Your task to perform on an android device: snooze an email in the gmail app Image 0: 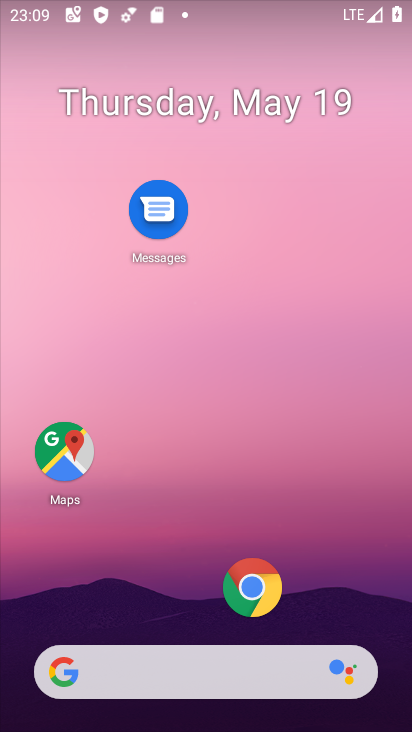
Step 0: press home button
Your task to perform on an android device: snooze an email in the gmail app Image 1: 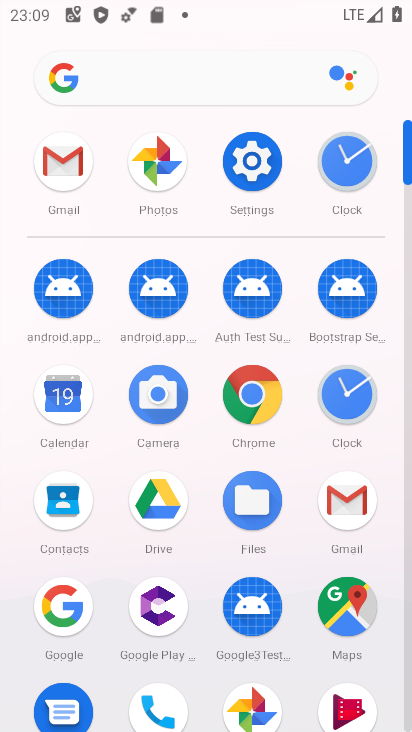
Step 1: drag from (147, 626) to (201, 12)
Your task to perform on an android device: snooze an email in the gmail app Image 2: 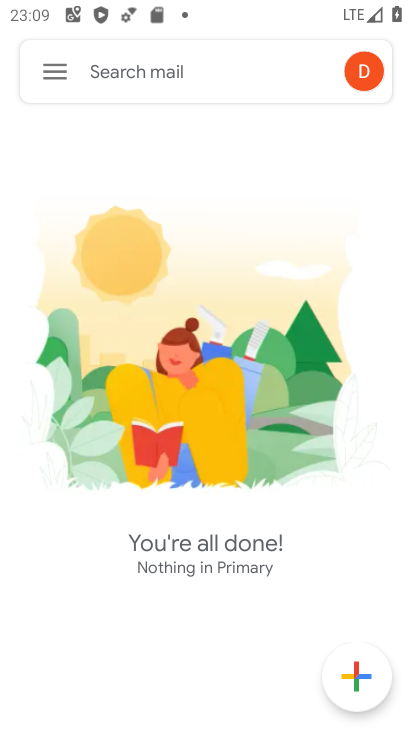
Step 2: click (64, 161)
Your task to perform on an android device: snooze an email in the gmail app Image 3: 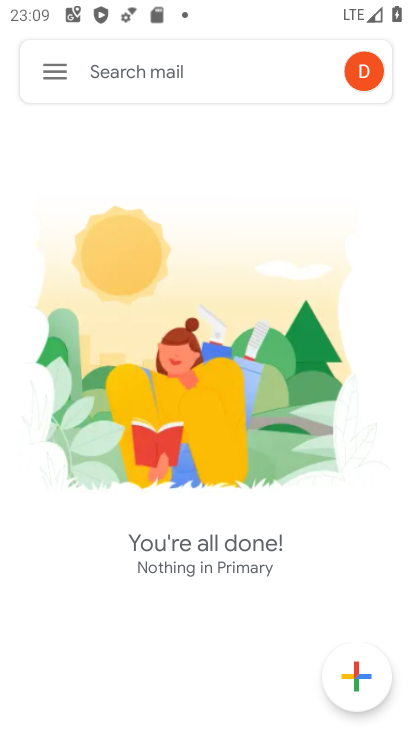
Step 3: task complete